Your task to perform on an android device: set an alarm Image 0: 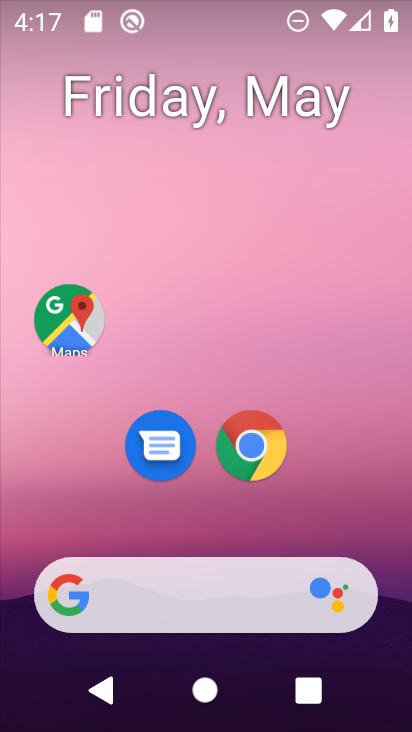
Step 0: drag from (276, 520) to (187, 14)
Your task to perform on an android device: set an alarm Image 1: 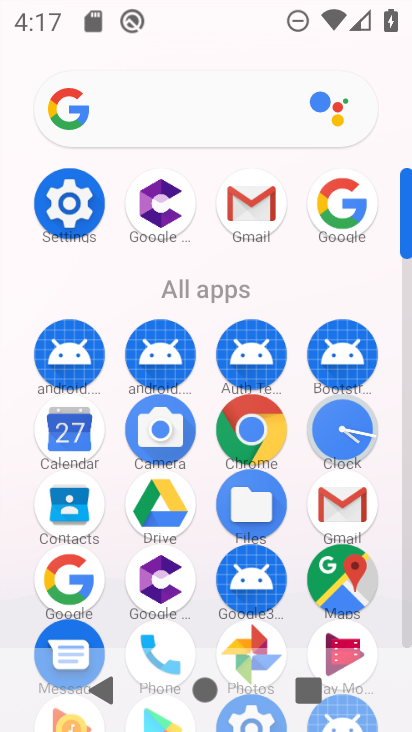
Step 1: click (341, 431)
Your task to perform on an android device: set an alarm Image 2: 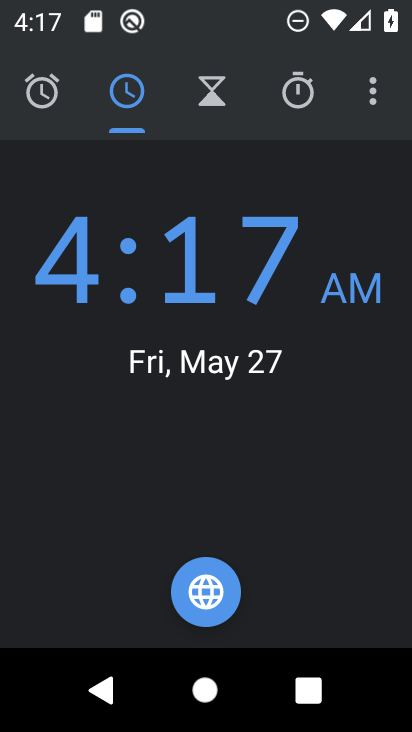
Step 2: click (372, 104)
Your task to perform on an android device: set an alarm Image 3: 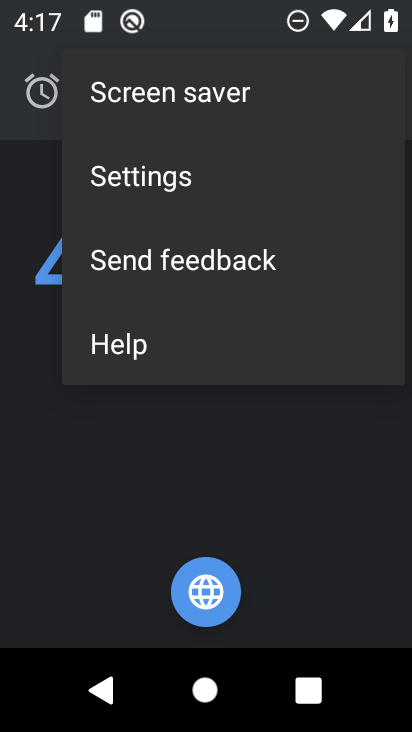
Step 3: click (333, 526)
Your task to perform on an android device: set an alarm Image 4: 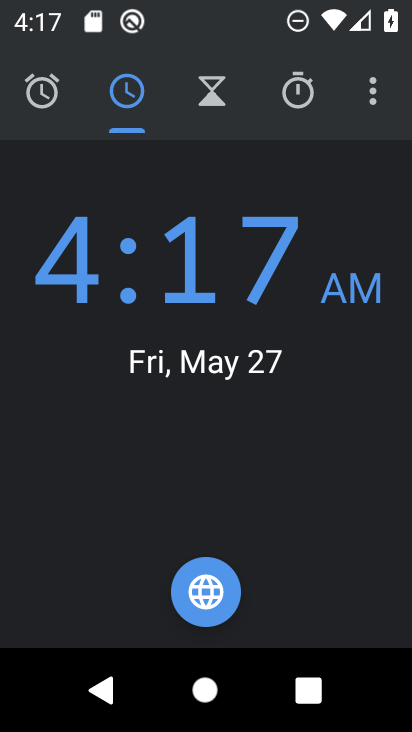
Step 4: click (41, 95)
Your task to perform on an android device: set an alarm Image 5: 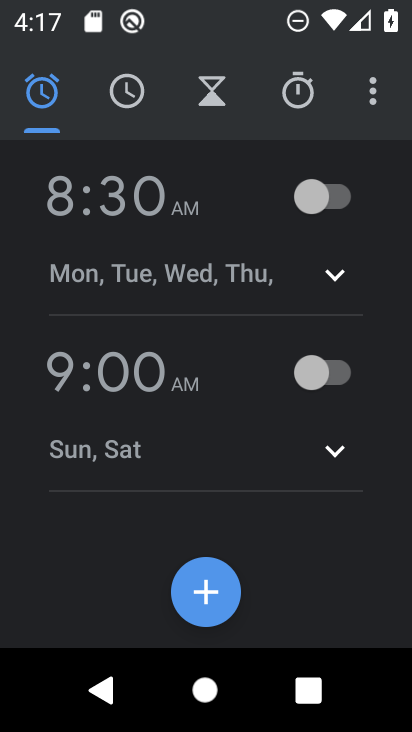
Step 5: click (294, 198)
Your task to perform on an android device: set an alarm Image 6: 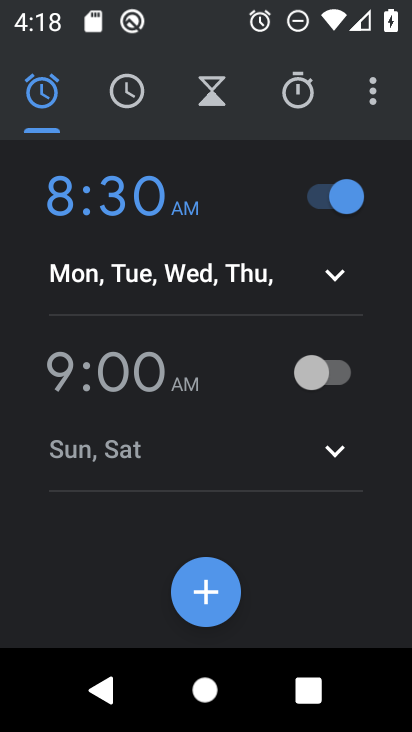
Step 6: task complete